Your task to perform on an android device: refresh tabs in the chrome app Image 0: 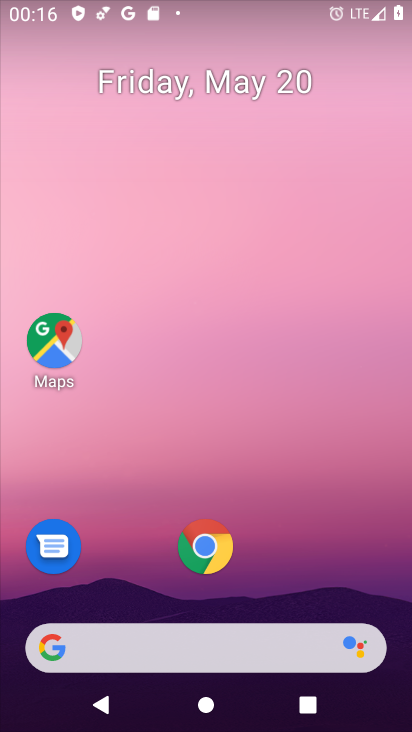
Step 0: click (214, 545)
Your task to perform on an android device: refresh tabs in the chrome app Image 1: 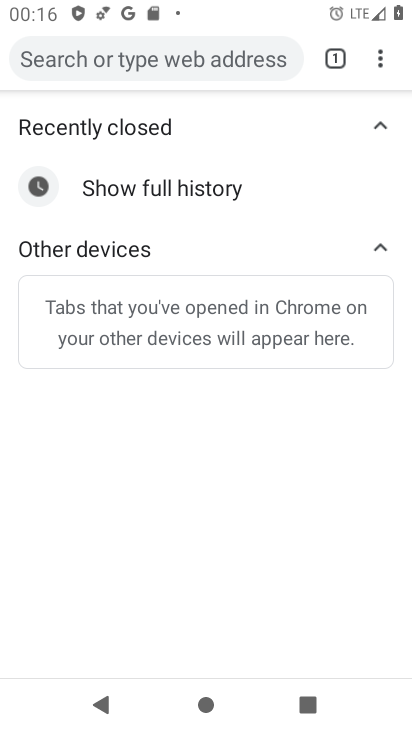
Step 1: click (388, 66)
Your task to perform on an android device: refresh tabs in the chrome app Image 2: 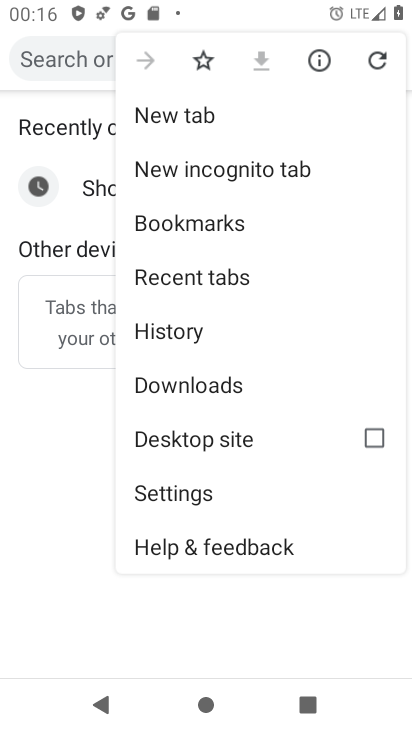
Step 2: click (388, 66)
Your task to perform on an android device: refresh tabs in the chrome app Image 3: 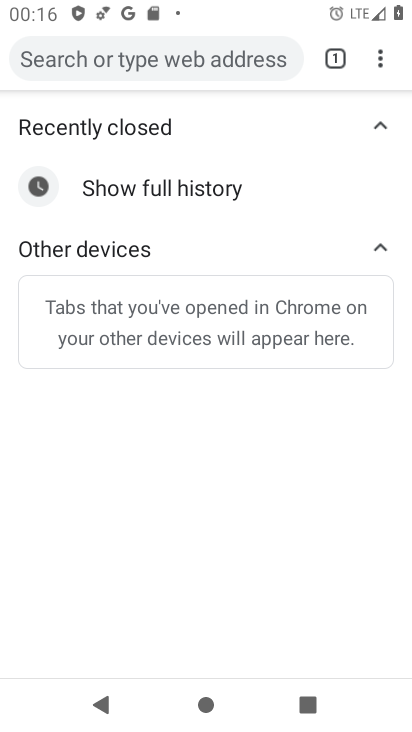
Step 3: task complete